Your task to perform on an android device: search for starred emails in the gmail app Image 0: 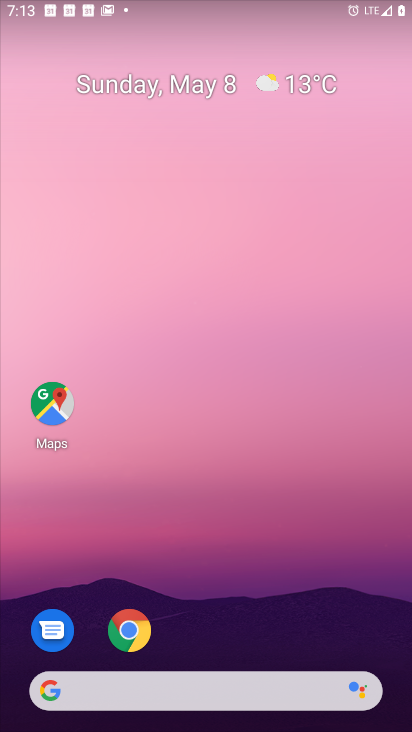
Step 0: drag from (220, 624) to (121, 98)
Your task to perform on an android device: search for starred emails in the gmail app Image 1: 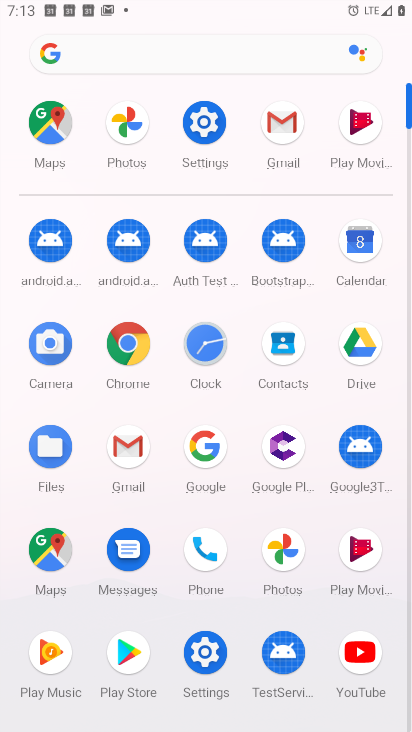
Step 1: click (272, 132)
Your task to perform on an android device: search for starred emails in the gmail app Image 2: 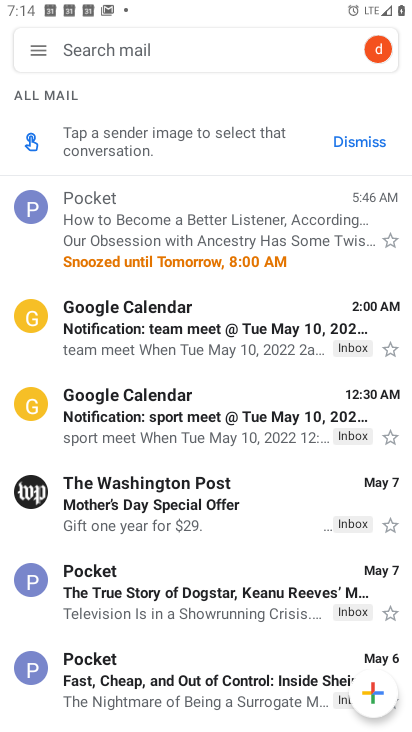
Step 2: click (41, 51)
Your task to perform on an android device: search for starred emails in the gmail app Image 3: 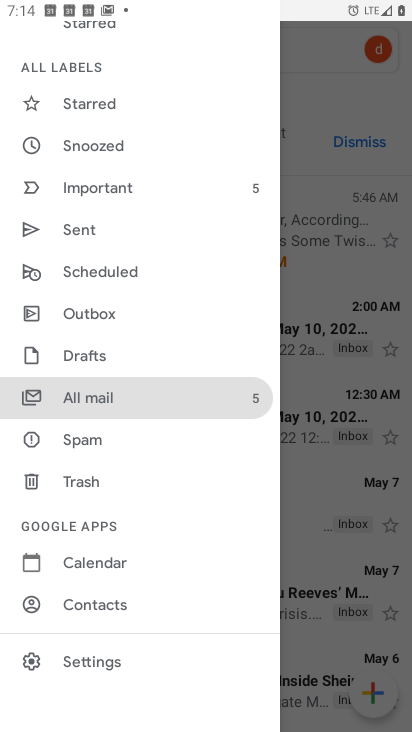
Step 3: click (88, 101)
Your task to perform on an android device: search for starred emails in the gmail app Image 4: 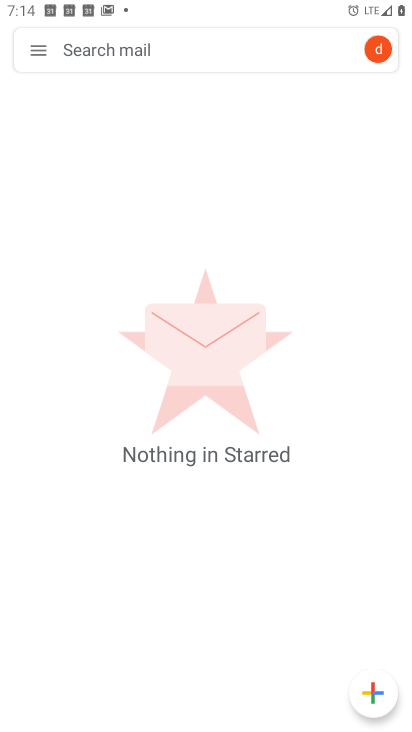
Step 4: task complete